Your task to perform on an android device: Open Chrome and go to settings Image 0: 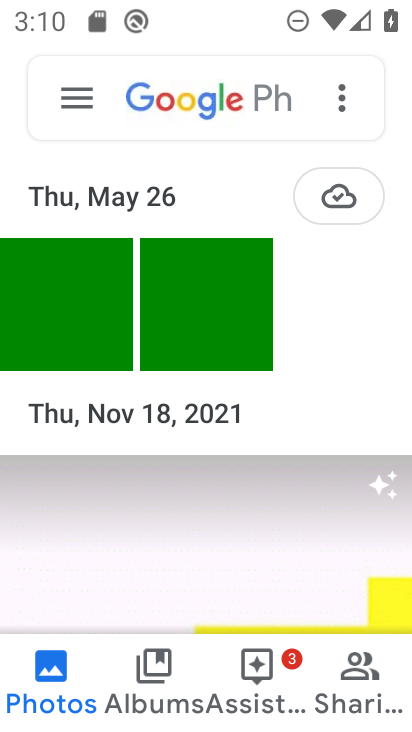
Step 0: press home button
Your task to perform on an android device: Open Chrome and go to settings Image 1: 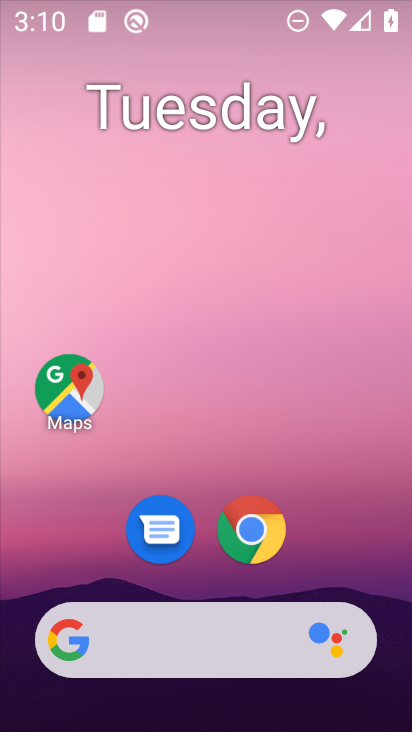
Step 1: click (258, 509)
Your task to perform on an android device: Open Chrome and go to settings Image 2: 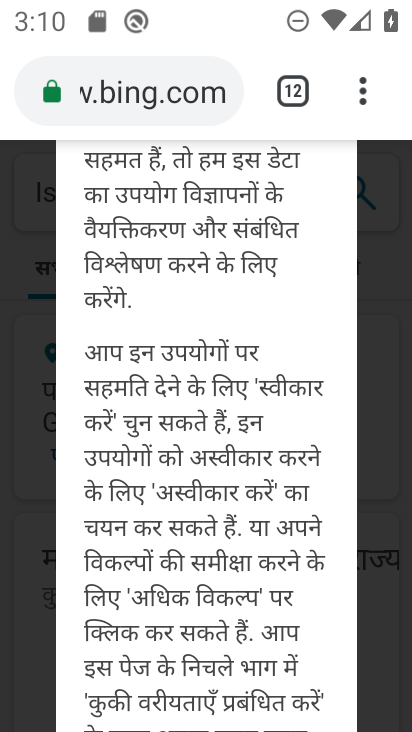
Step 2: click (380, 77)
Your task to perform on an android device: Open Chrome and go to settings Image 3: 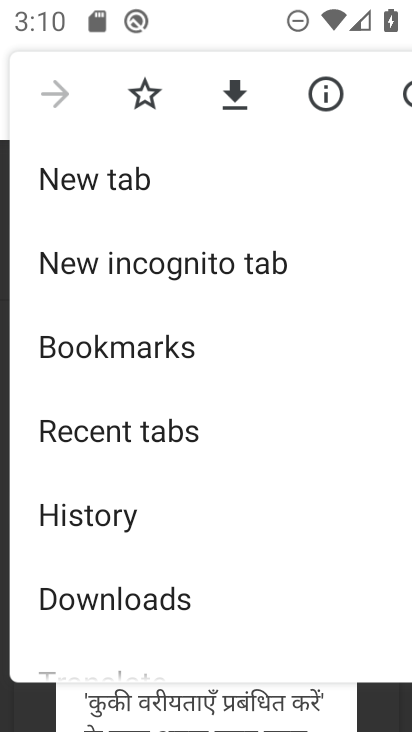
Step 3: drag from (161, 570) to (266, 173)
Your task to perform on an android device: Open Chrome and go to settings Image 4: 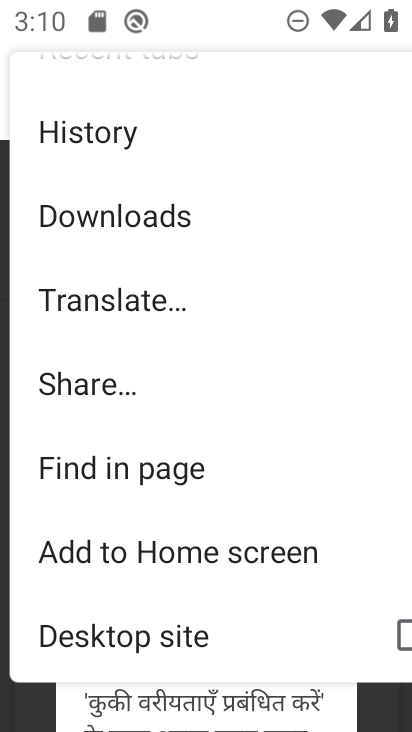
Step 4: drag from (140, 563) to (227, 203)
Your task to perform on an android device: Open Chrome and go to settings Image 5: 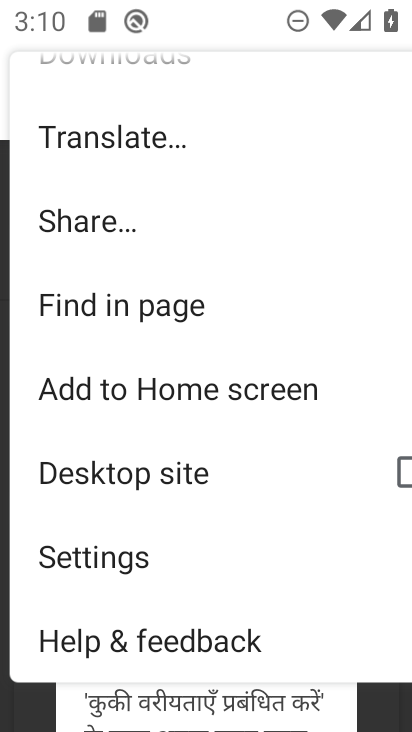
Step 5: click (119, 566)
Your task to perform on an android device: Open Chrome and go to settings Image 6: 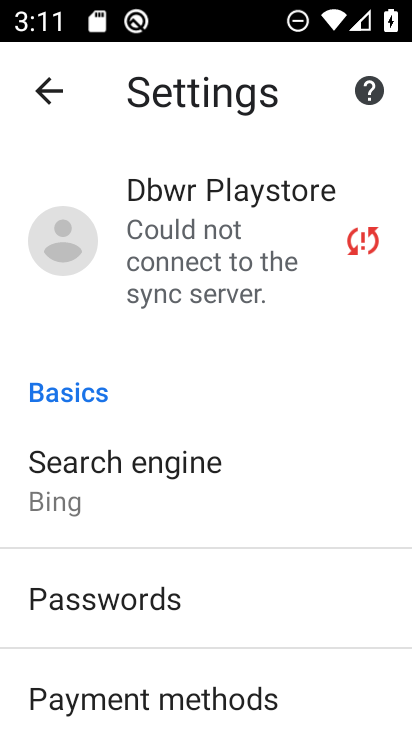
Step 6: task complete